Your task to perform on an android device: change alarm snooze length Image 0: 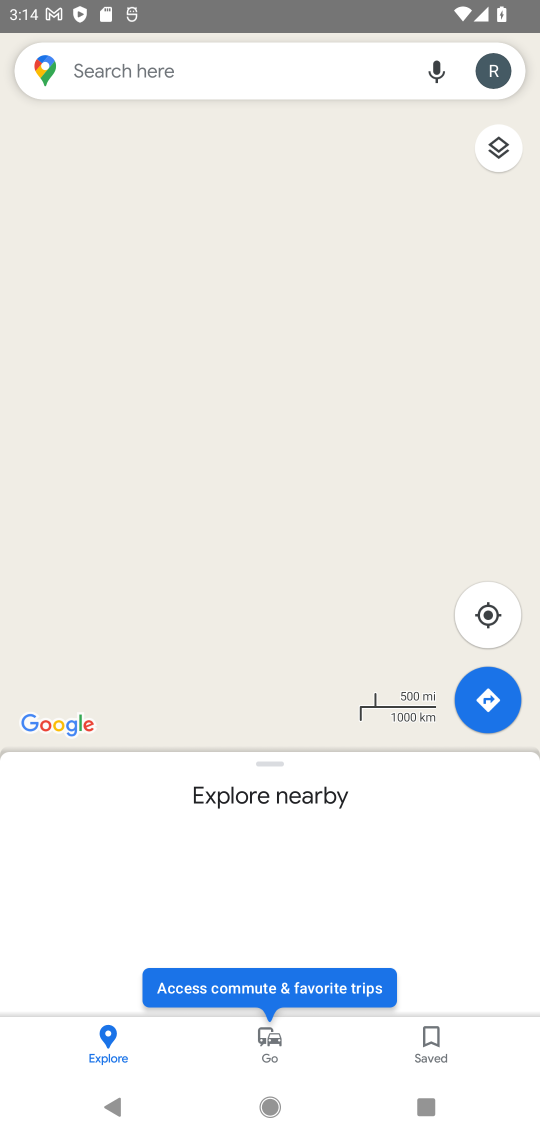
Step 0: press home button
Your task to perform on an android device: change alarm snooze length Image 1: 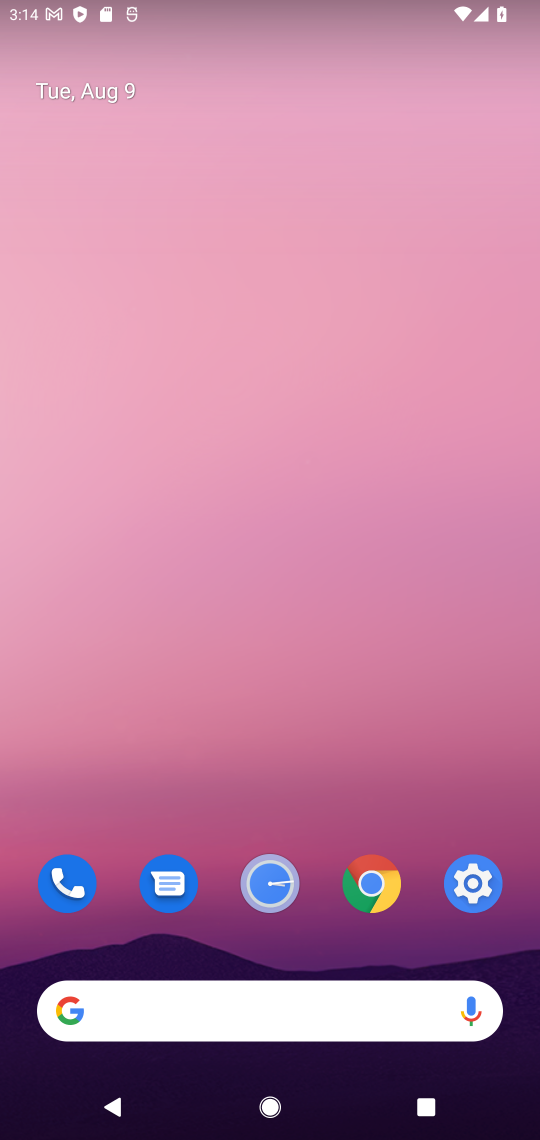
Step 1: drag from (384, 1048) to (255, 213)
Your task to perform on an android device: change alarm snooze length Image 2: 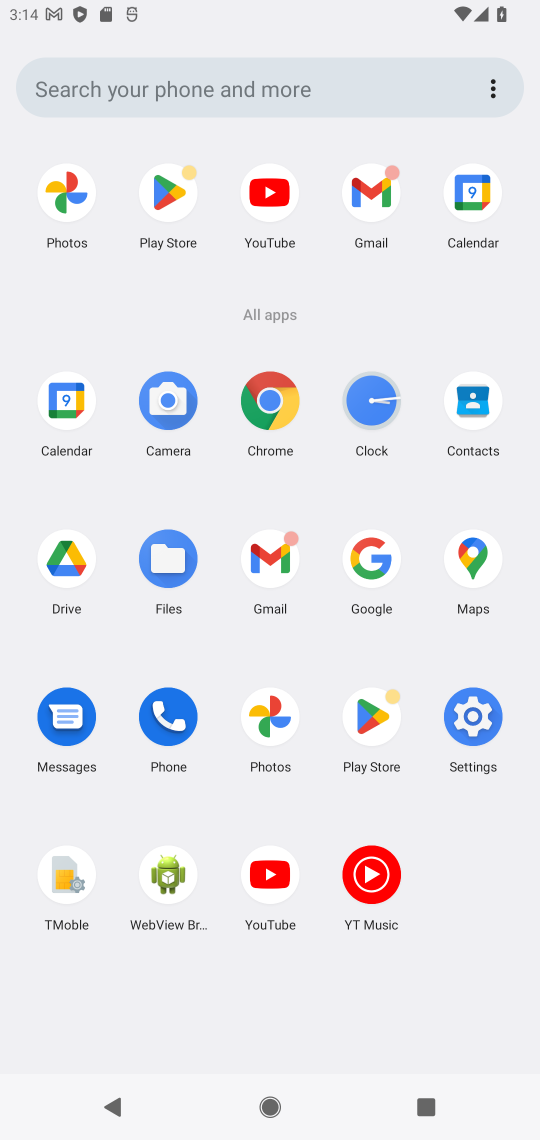
Step 2: click (371, 385)
Your task to perform on an android device: change alarm snooze length Image 3: 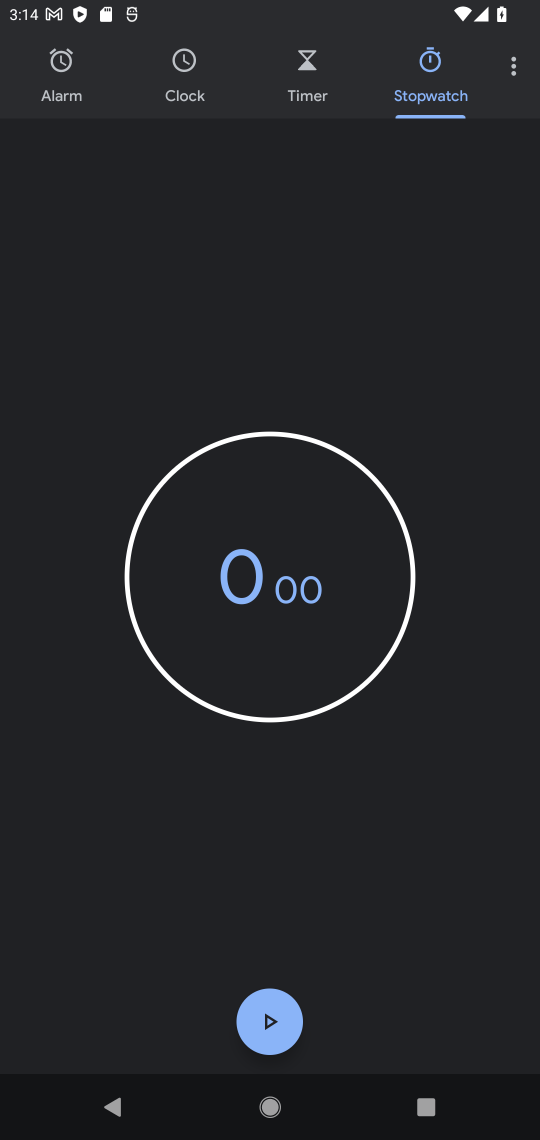
Step 3: click (507, 76)
Your task to perform on an android device: change alarm snooze length Image 4: 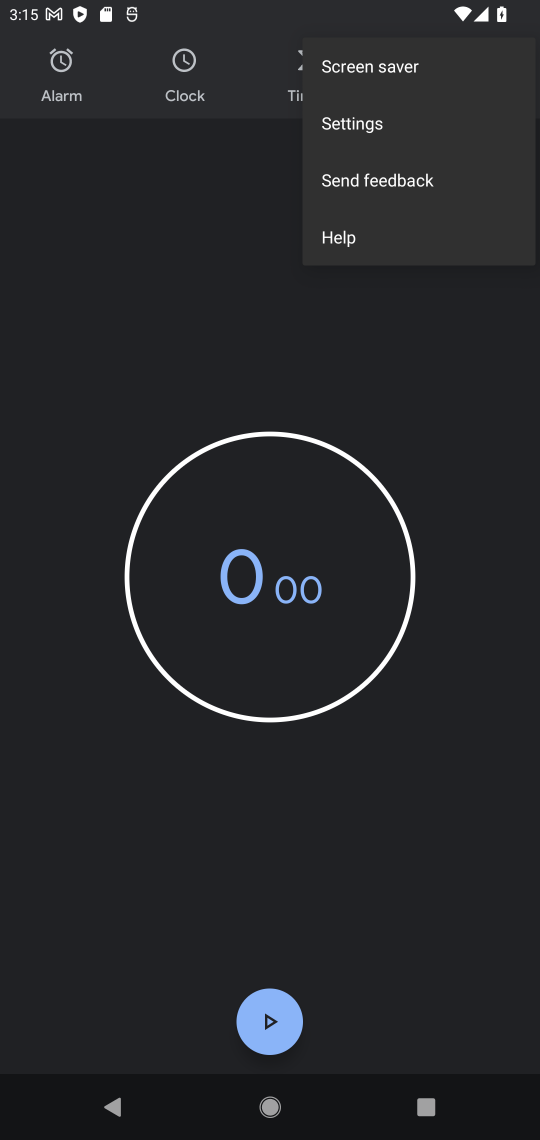
Step 4: click (348, 129)
Your task to perform on an android device: change alarm snooze length Image 5: 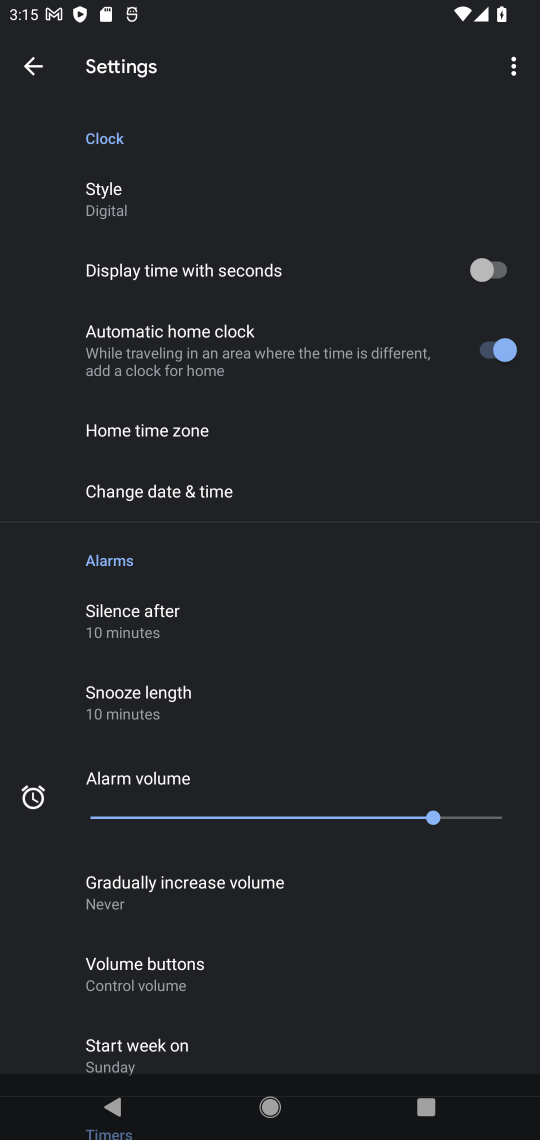
Step 5: click (141, 689)
Your task to perform on an android device: change alarm snooze length Image 6: 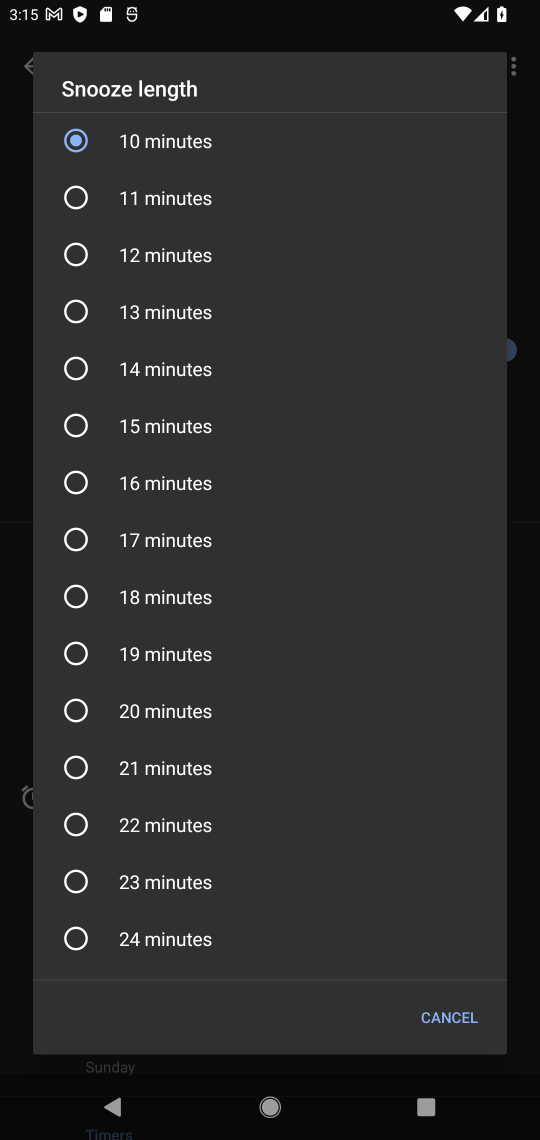
Step 6: click (162, 602)
Your task to perform on an android device: change alarm snooze length Image 7: 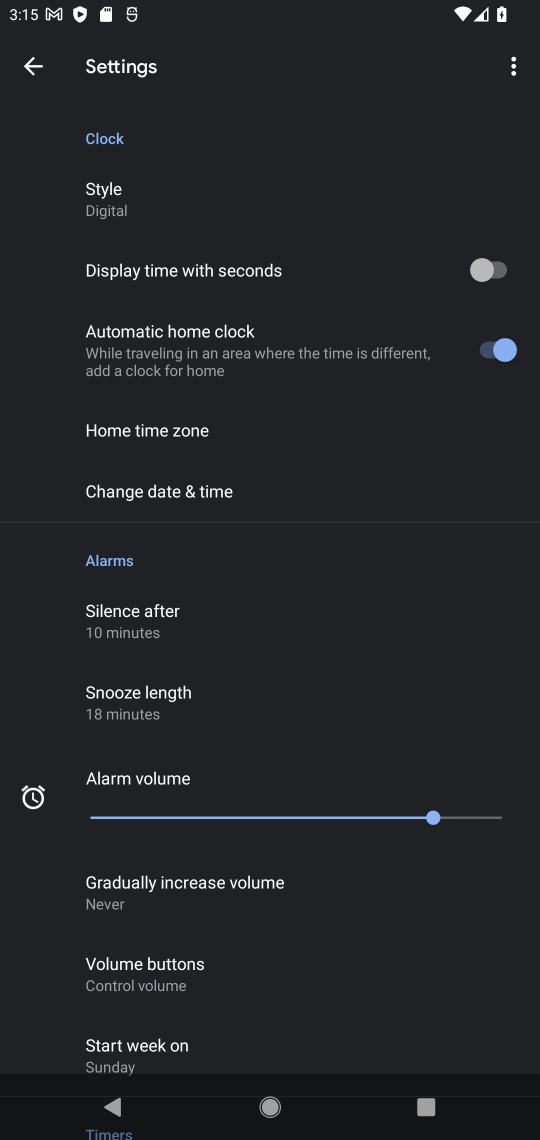
Step 7: task complete